Your task to perform on an android device: Open maps Image 0: 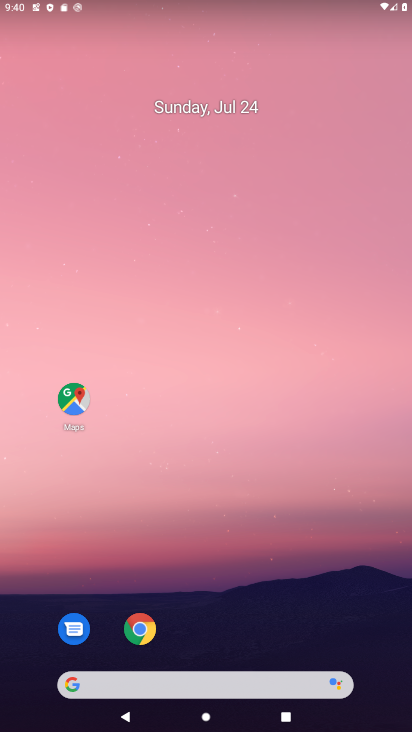
Step 0: click (67, 401)
Your task to perform on an android device: Open maps Image 1: 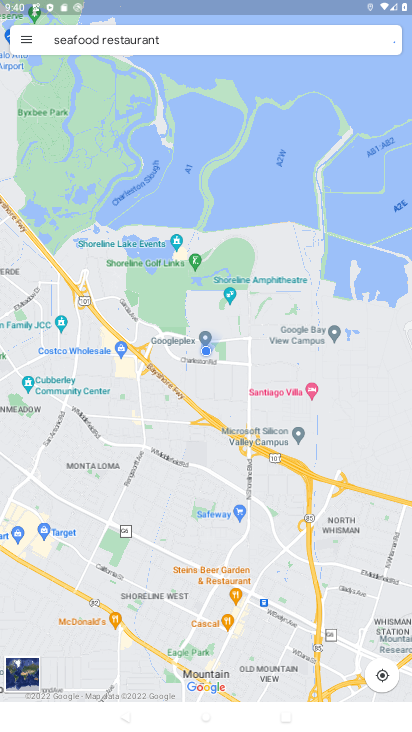
Step 1: task complete